Your task to perform on an android device: Do I have any events today? Image 0: 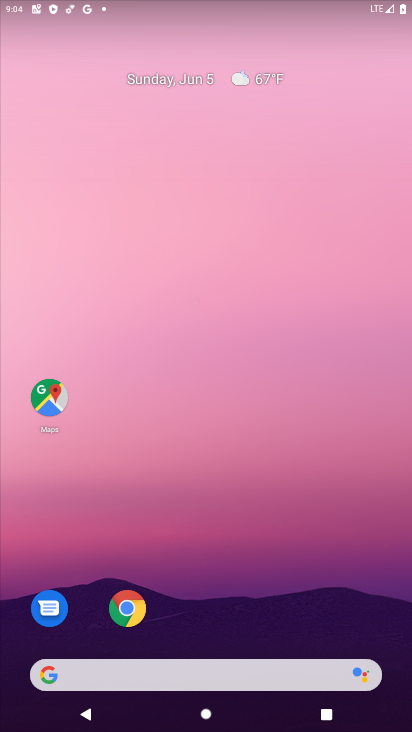
Step 0: press home button
Your task to perform on an android device: Do I have any events today? Image 1: 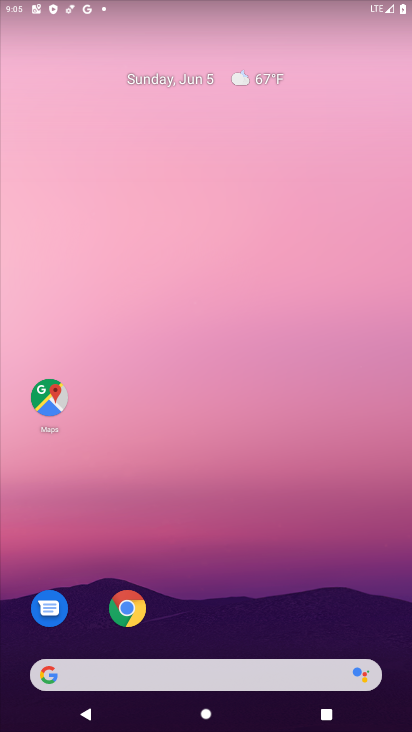
Step 1: drag from (6, 697) to (220, 307)
Your task to perform on an android device: Do I have any events today? Image 2: 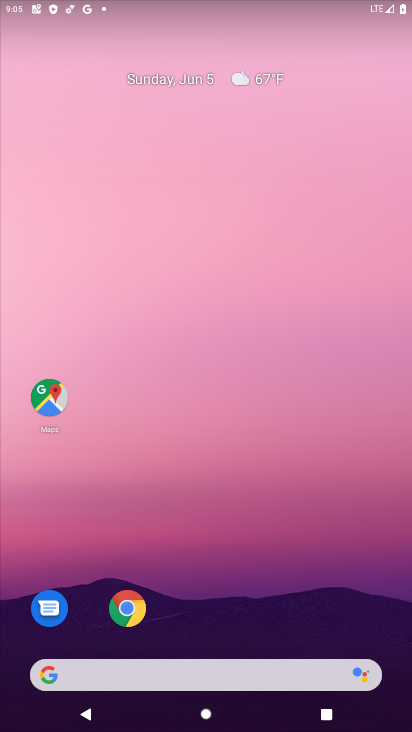
Step 2: drag from (22, 615) to (350, 167)
Your task to perform on an android device: Do I have any events today? Image 3: 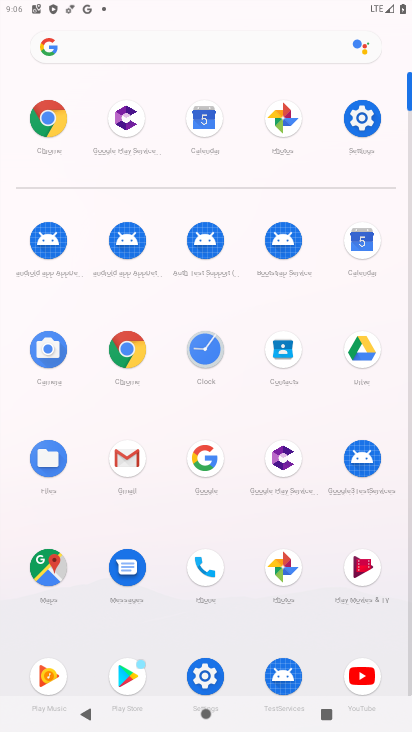
Step 3: click (366, 252)
Your task to perform on an android device: Do I have any events today? Image 4: 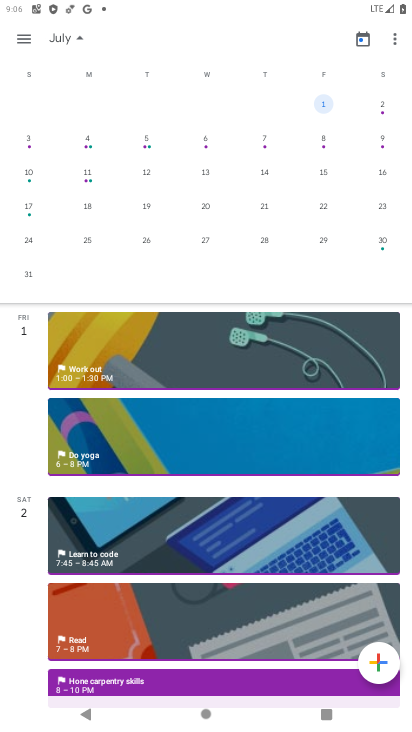
Step 4: task complete